Your task to perform on an android device: check storage Image 0: 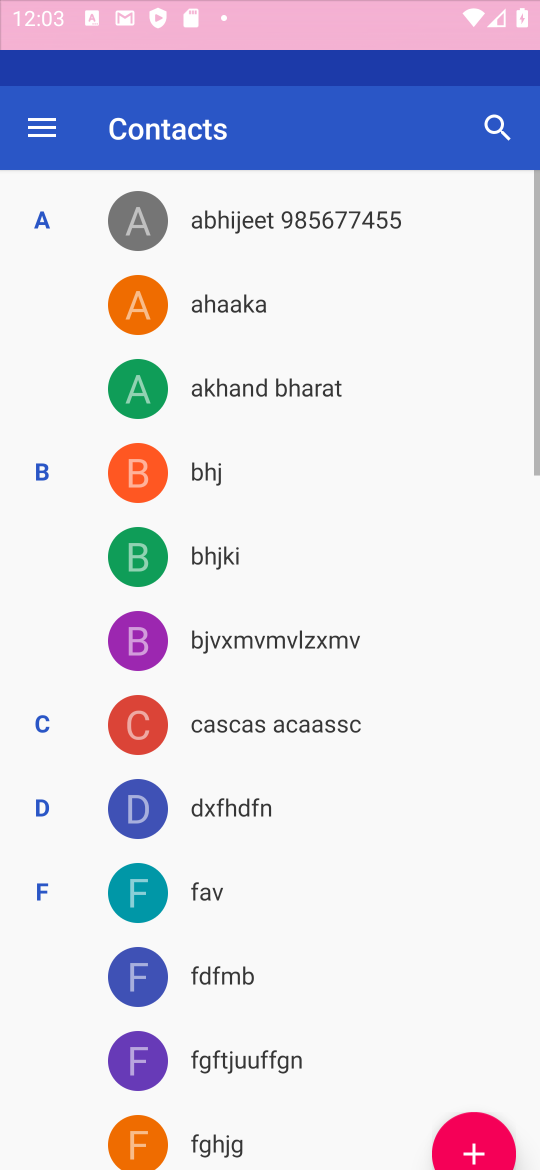
Step 0: press home button
Your task to perform on an android device: check storage Image 1: 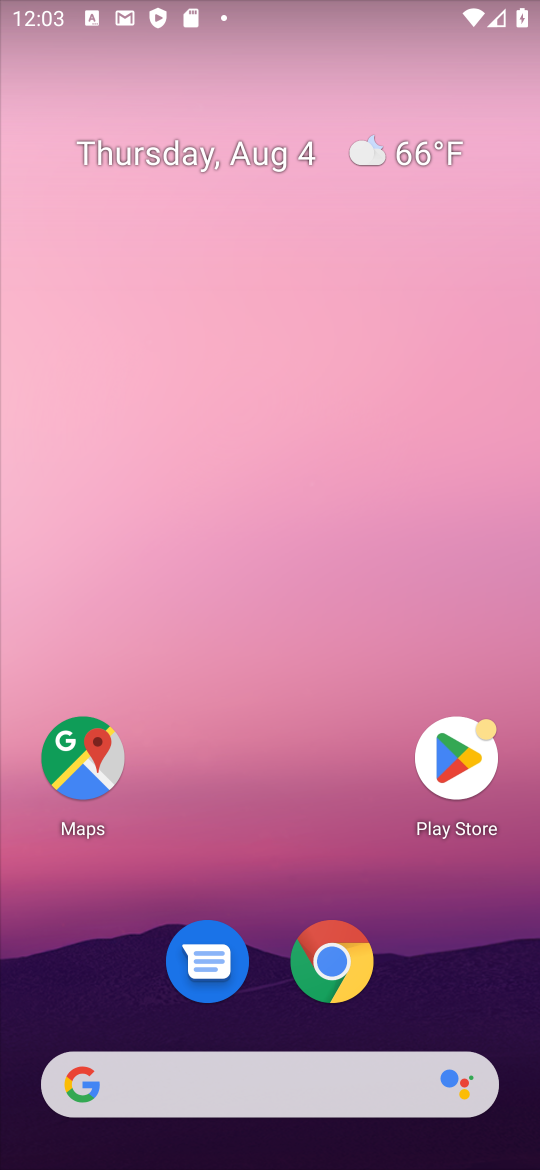
Step 1: drag from (315, 438) to (348, 0)
Your task to perform on an android device: check storage Image 2: 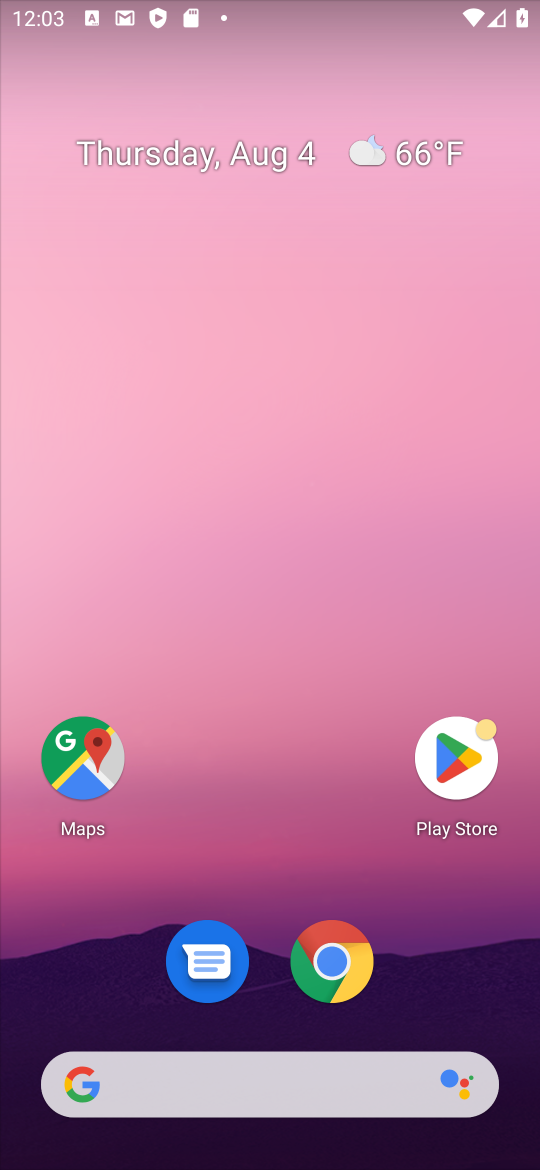
Step 2: drag from (266, 891) to (365, 0)
Your task to perform on an android device: check storage Image 3: 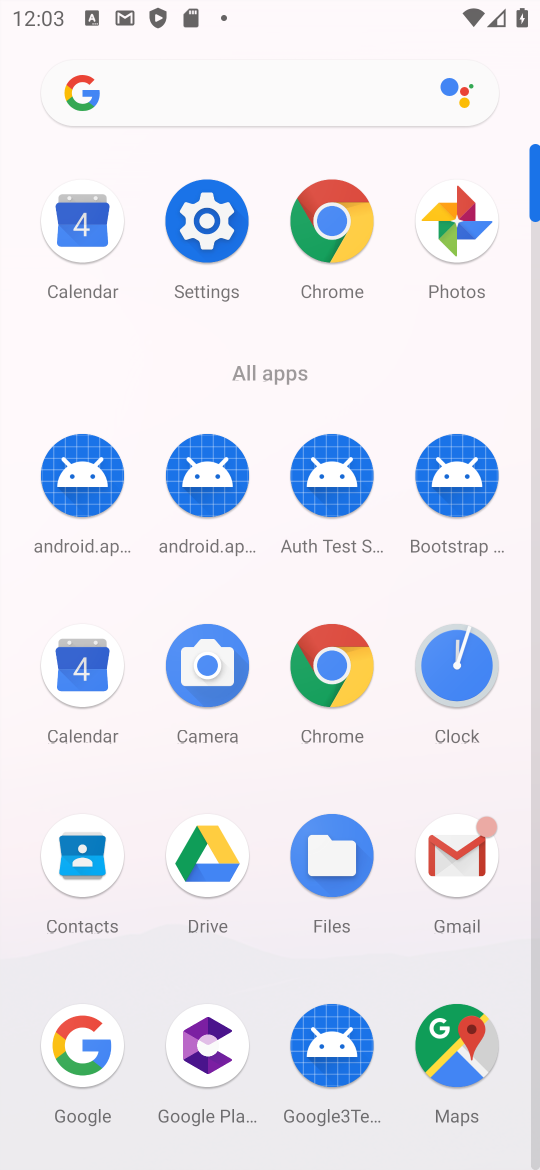
Step 3: click (204, 225)
Your task to perform on an android device: check storage Image 4: 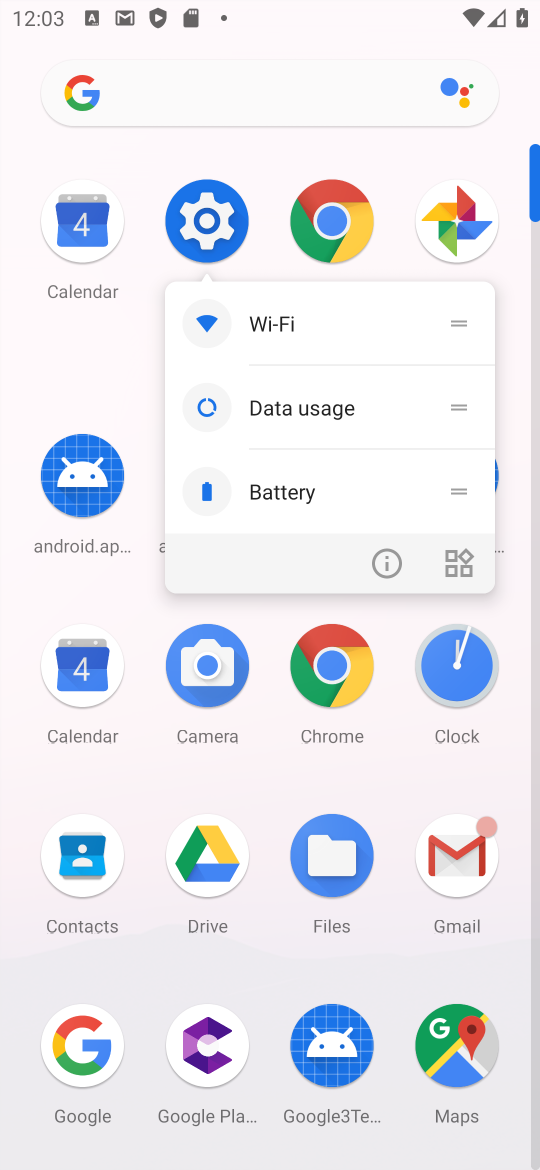
Step 4: click (204, 225)
Your task to perform on an android device: check storage Image 5: 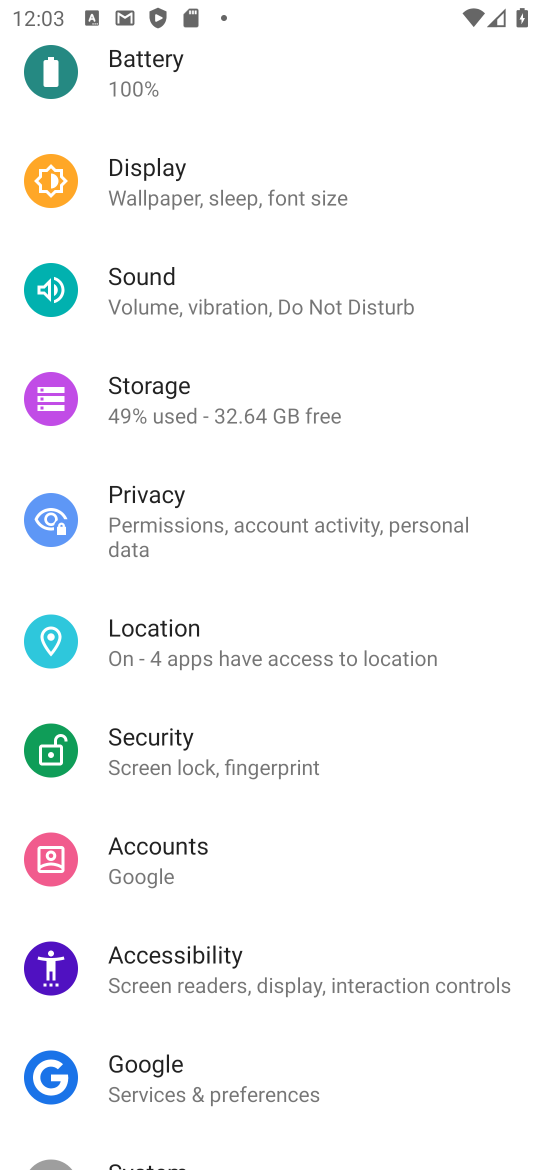
Step 5: click (186, 405)
Your task to perform on an android device: check storage Image 6: 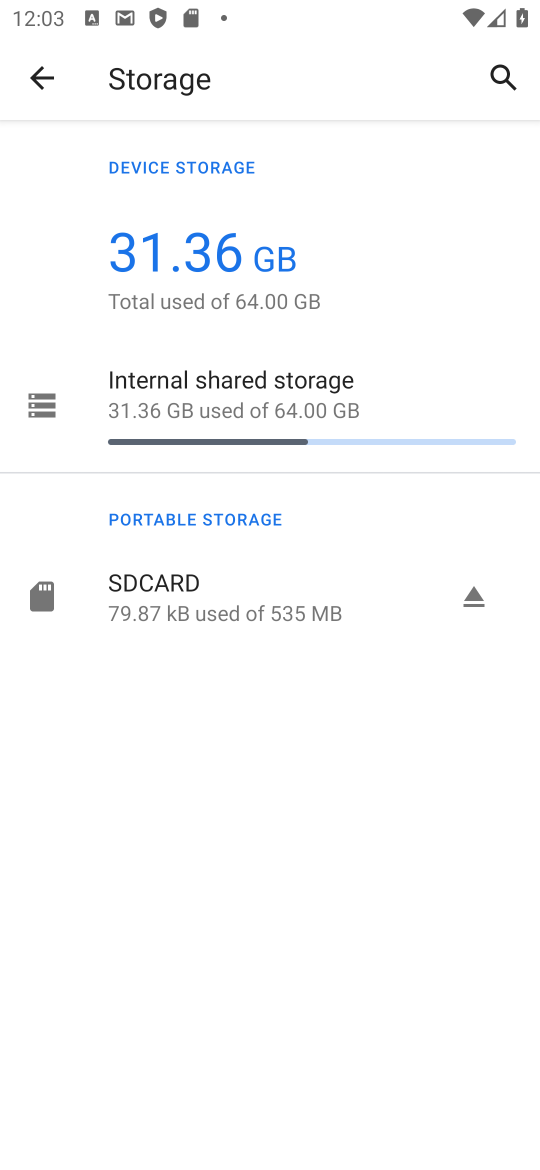
Step 6: task complete